Your task to perform on an android device: check out phone information Image 0: 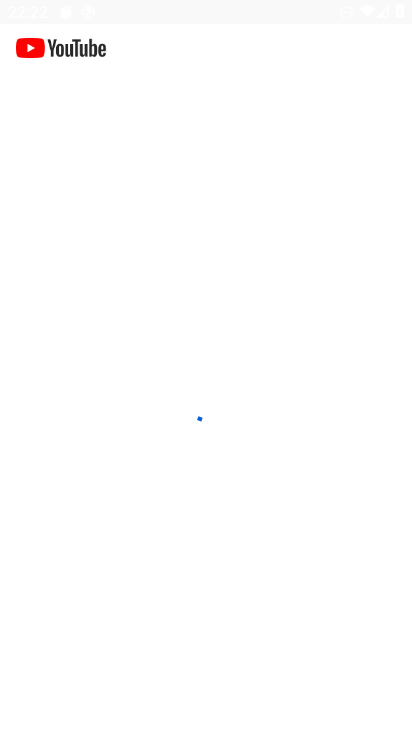
Step 0: click (299, 356)
Your task to perform on an android device: check out phone information Image 1: 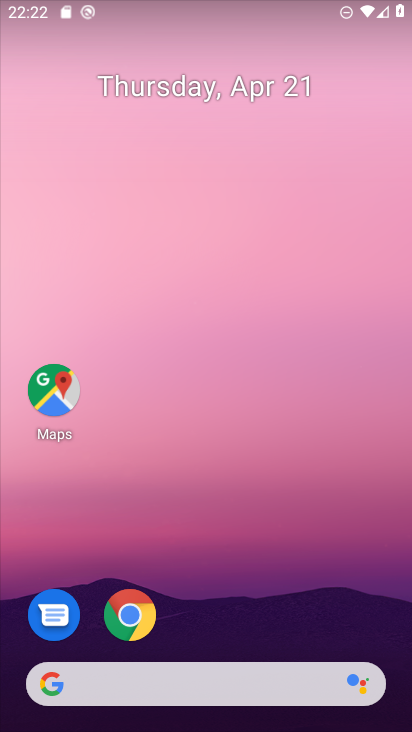
Step 1: drag from (199, 603) to (255, 144)
Your task to perform on an android device: check out phone information Image 2: 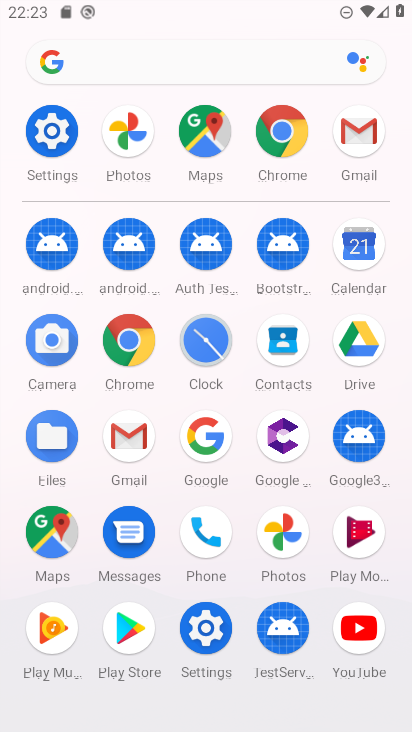
Step 2: click (205, 638)
Your task to perform on an android device: check out phone information Image 3: 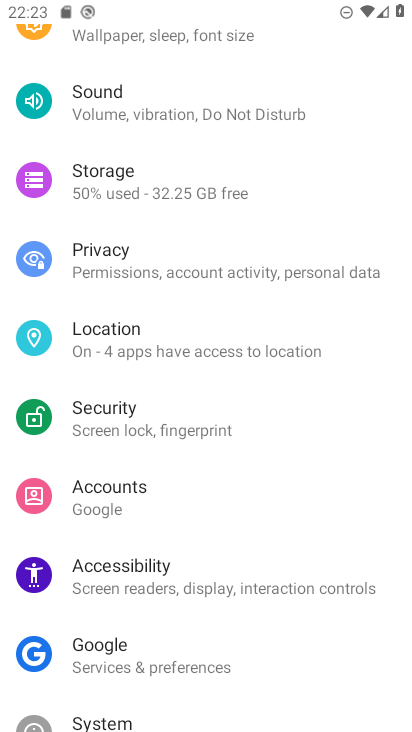
Step 3: drag from (199, 134) to (256, 599)
Your task to perform on an android device: check out phone information Image 4: 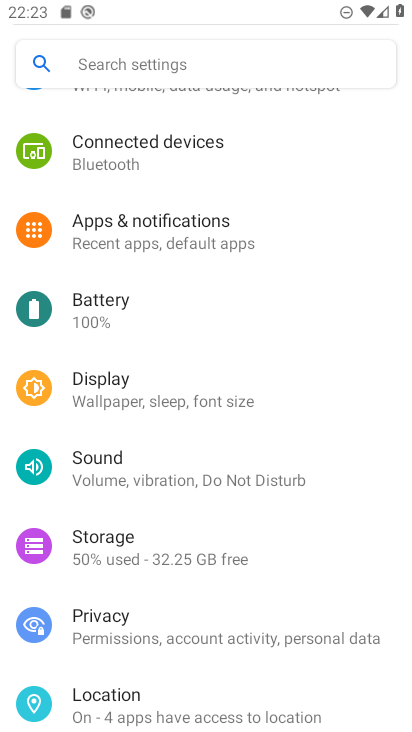
Step 4: drag from (203, 224) to (328, 652)
Your task to perform on an android device: check out phone information Image 5: 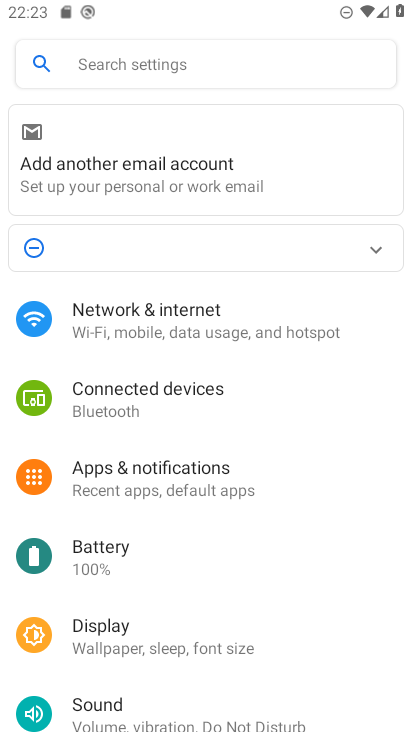
Step 5: drag from (194, 285) to (286, 725)
Your task to perform on an android device: check out phone information Image 6: 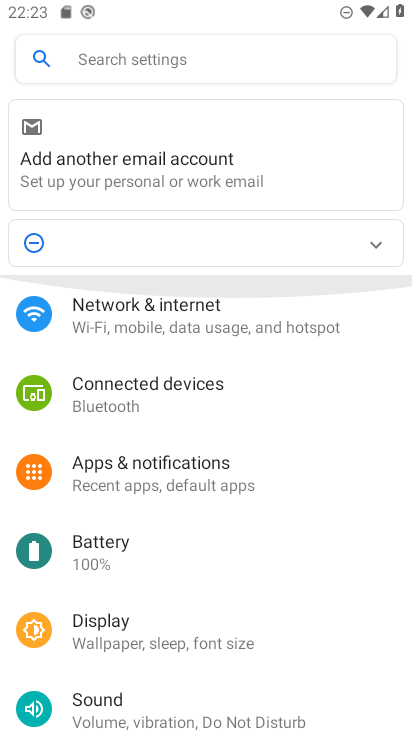
Step 6: drag from (237, 637) to (366, 52)
Your task to perform on an android device: check out phone information Image 7: 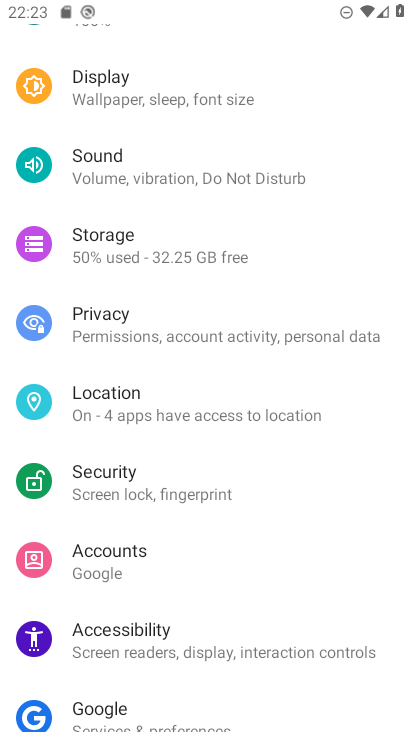
Step 7: drag from (202, 621) to (271, 119)
Your task to perform on an android device: check out phone information Image 8: 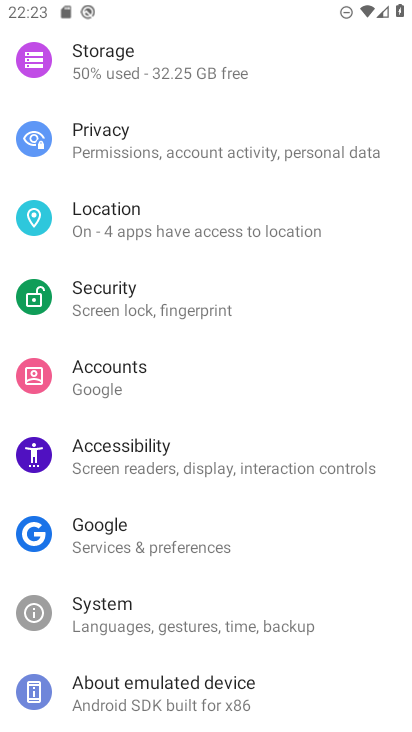
Step 8: drag from (137, 639) to (261, 240)
Your task to perform on an android device: check out phone information Image 9: 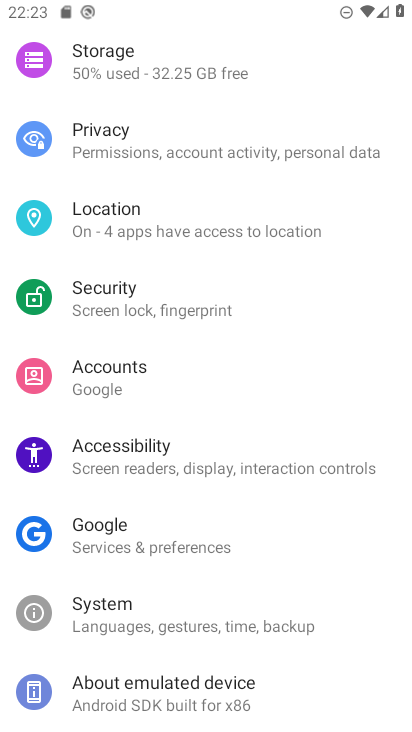
Step 9: click (173, 692)
Your task to perform on an android device: check out phone information Image 10: 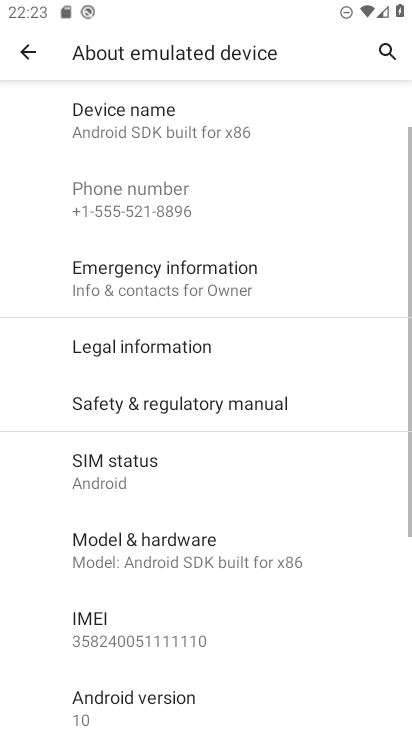
Step 10: task complete